Your task to perform on an android device: Toggle the flashlight Image 0: 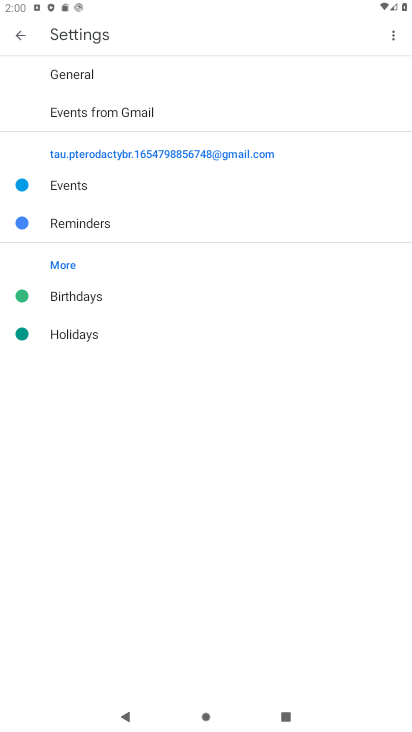
Step 0: press home button
Your task to perform on an android device: Toggle the flashlight Image 1: 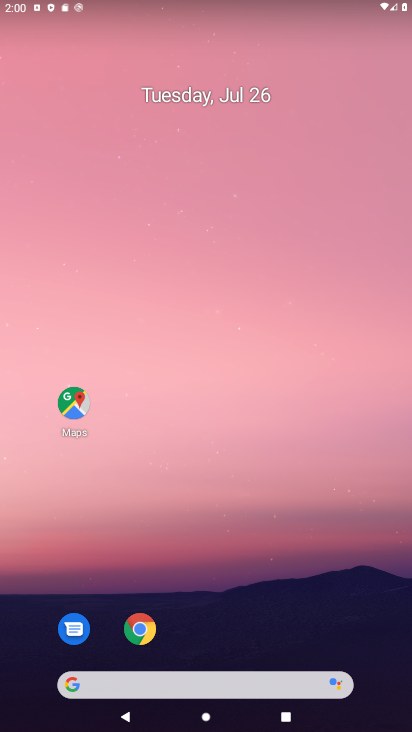
Step 1: drag from (219, 10) to (206, 508)
Your task to perform on an android device: Toggle the flashlight Image 2: 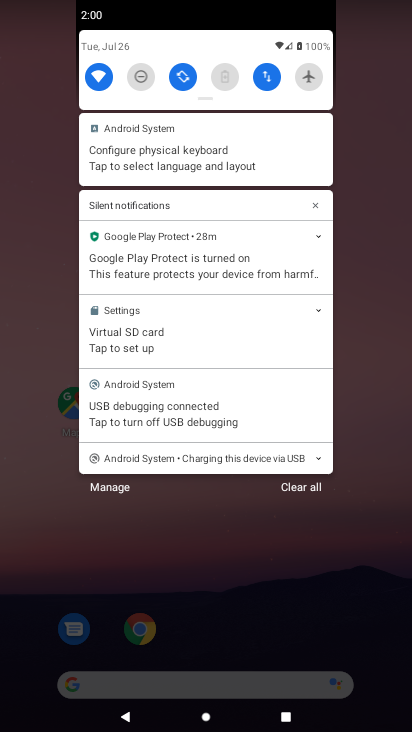
Step 2: drag from (207, 100) to (195, 326)
Your task to perform on an android device: Toggle the flashlight Image 3: 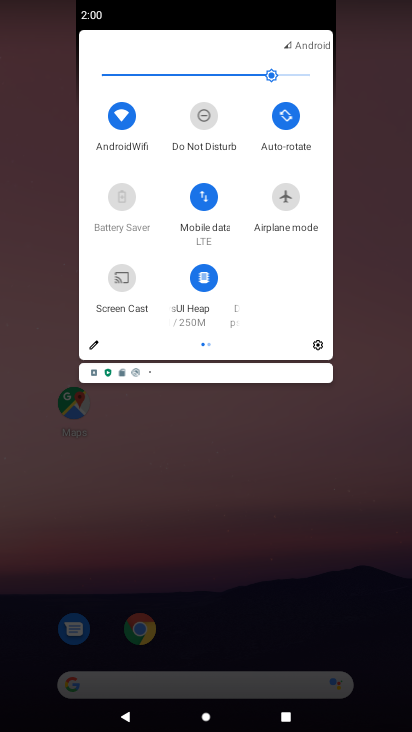
Step 3: click (93, 343)
Your task to perform on an android device: Toggle the flashlight Image 4: 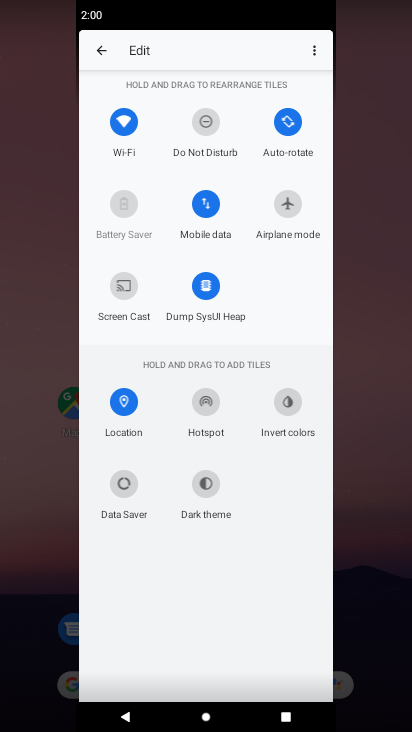
Step 4: task complete